Your task to perform on an android device: turn off sleep mode Image 0: 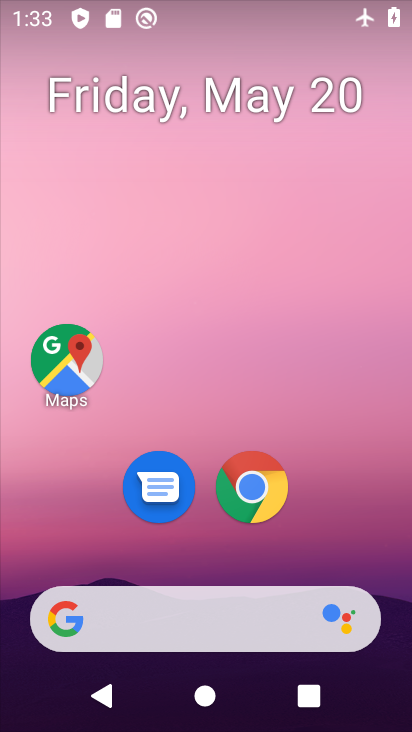
Step 0: drag from (335, 433) to (269, 0)
Your task to perform on an android device: turn off sleep mode Image 1: 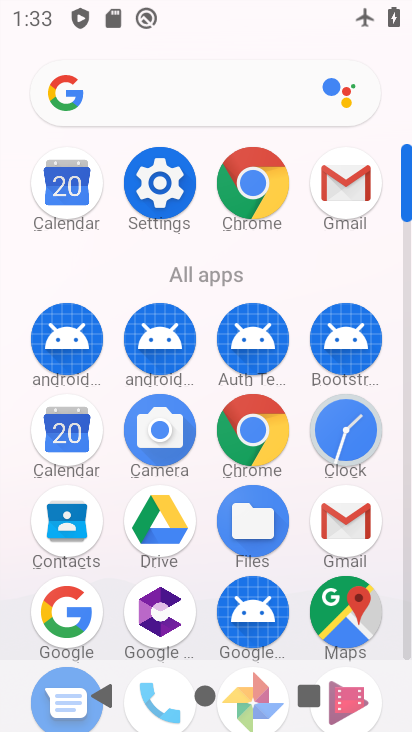
Step 1: click (153, 189)
Your task to perform on an android device: turn off sleep mode Image 2: 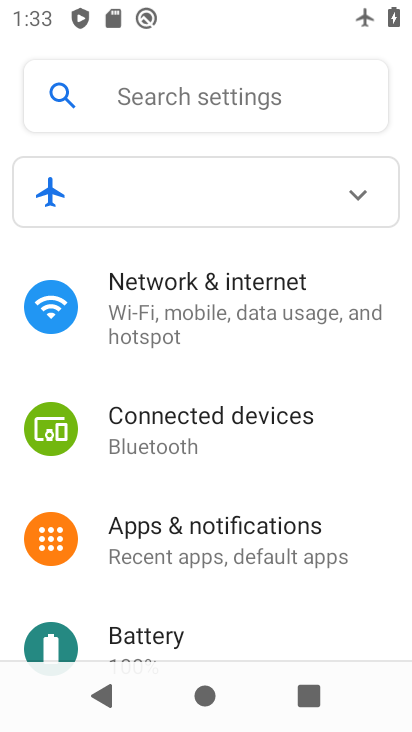
Step 2: drag from (206, 492) to (226, 168)
Your task to perform on an android device: turn off sleep mode Image 3: 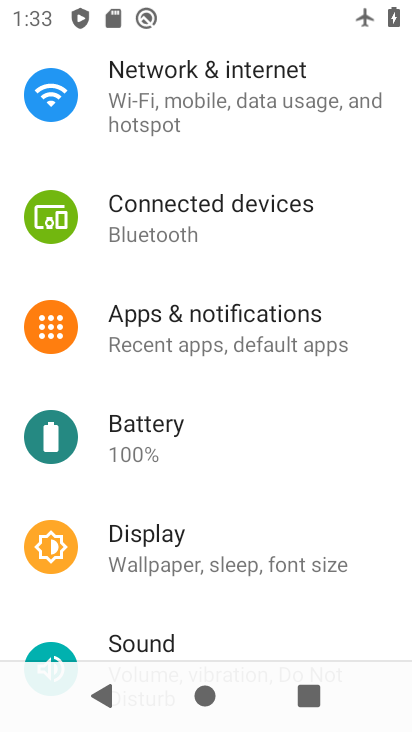
Step 3: click (175, 562)
Your task to perform on an android device: turn off sleep mode Image 4: 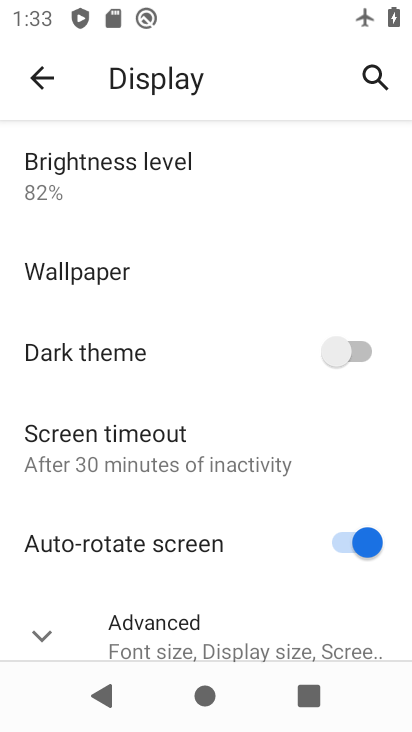
Step 4: click (108, 465)
Your task to perform on an android device: turn off sleep mode Image 5: 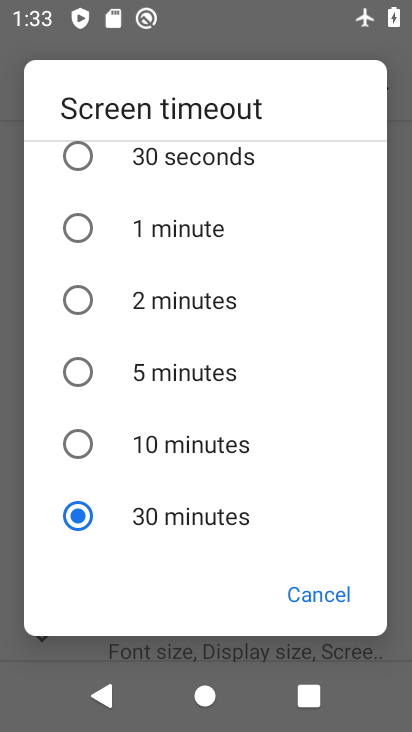
Step 5: task complete